Your task to perform on an android device: see tabs open on other devices in the chrome app Image 0: 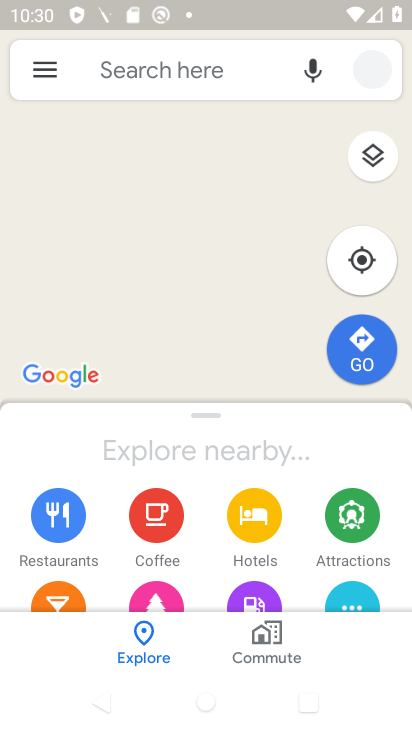
Step 0: drag from (289, 479) to (289, 141)
Your task to perform on an android device: see tabs open on other devices in the chrome app Image 1: 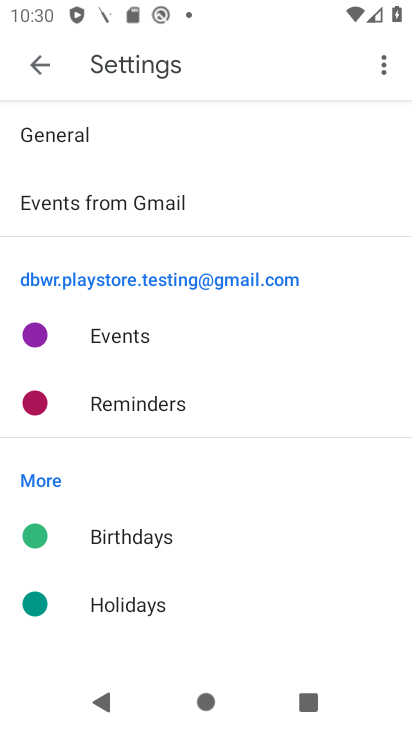
Step 1: press home button
Your task to perform on an android device: see tabs open on other devices in the chrome app Image 2: 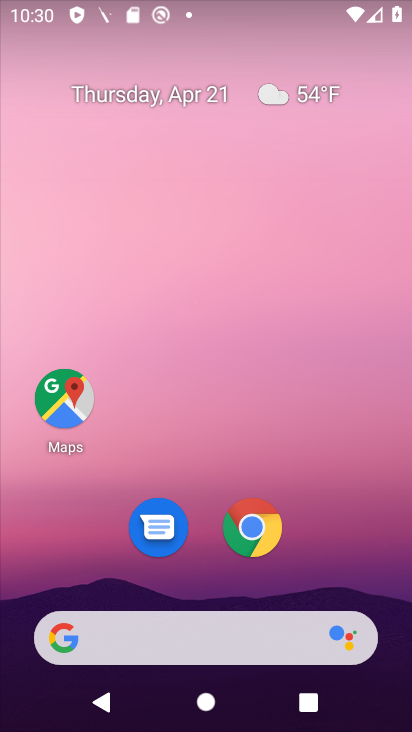
Step 2: click (254, 545)
Your task to perform on an android device: see tabs open on other devices in the chrome app Image 3: 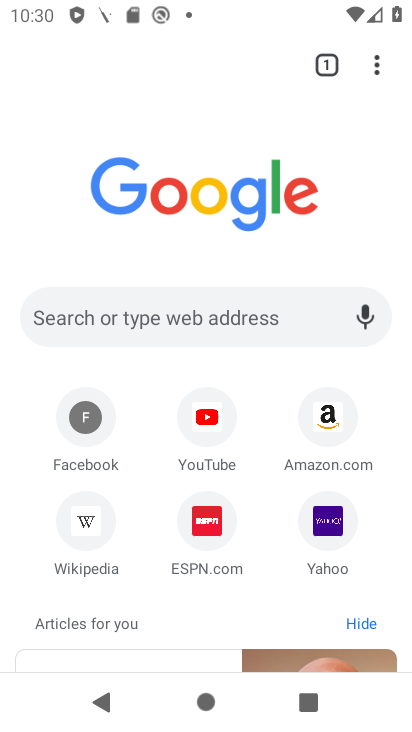
Step 3: click (326, 63)
Your task to perform on an android device: see tabs open on other devices in the chrome app Image 4: 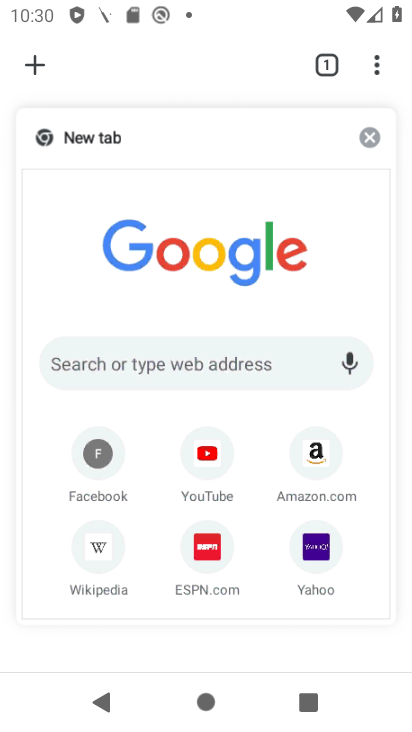
Step 4: task complete